Your task to perform on an android device: open wifi settings Image 0: 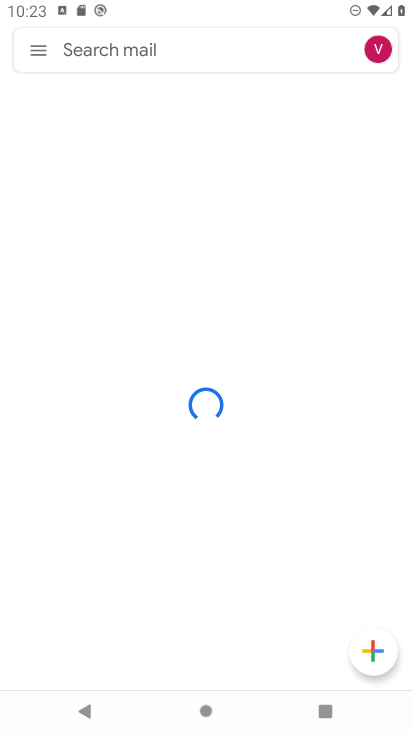
Step 0: press home button
Your task to perform on an android device: open wifi settings Image 1: 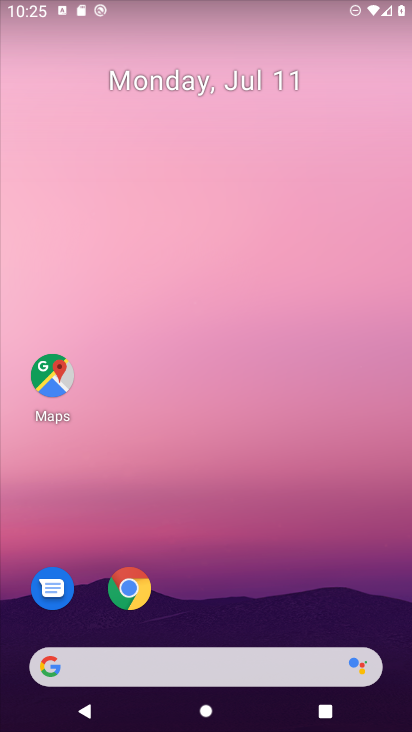
Step 1: drag from (386, 634) to (144, 39)
Your task to perform on an android device: open wifi settings Image 2: 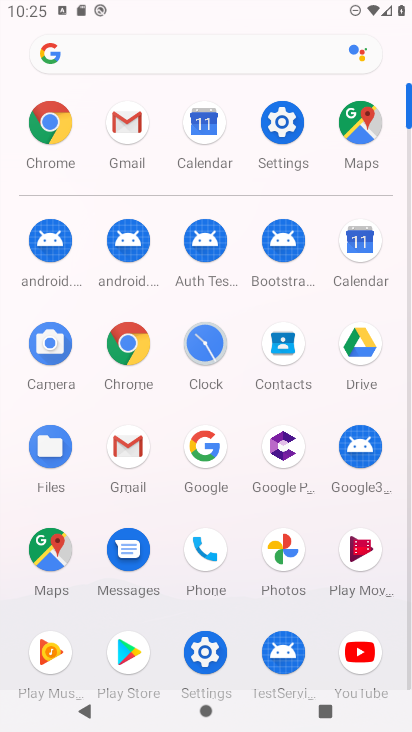
Step 2: click (289, 128)
Your task to perform on an android device: open wifi settings Image 3: 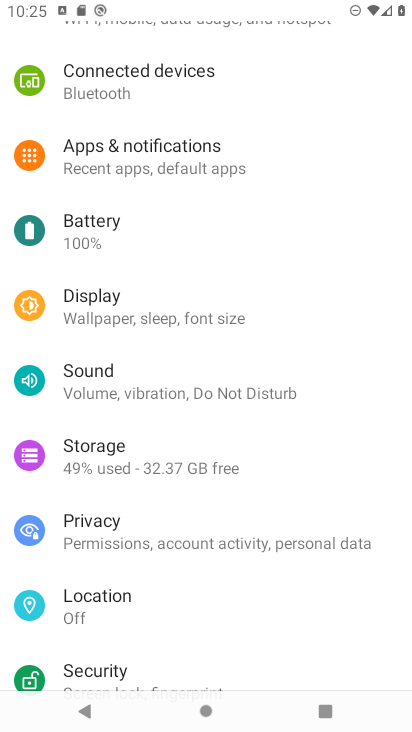
Step 3: drag from (127, 115) to (149, 670)
Your task to perform on an android device: open wifi settings Image 4: 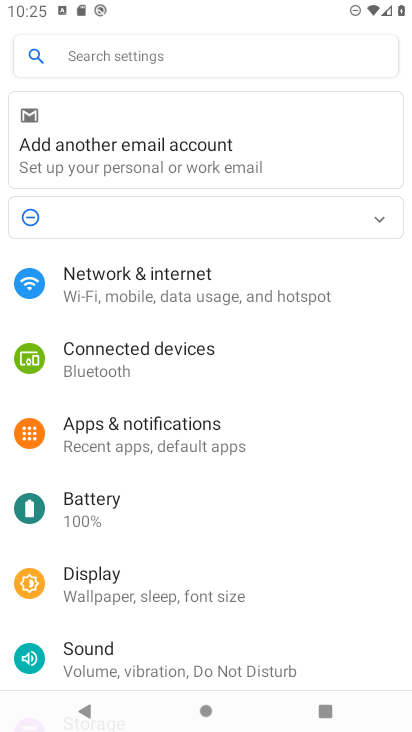
Step 4: click (151, 287)
Your task to perform on an android device: open wifi settings Image 5: 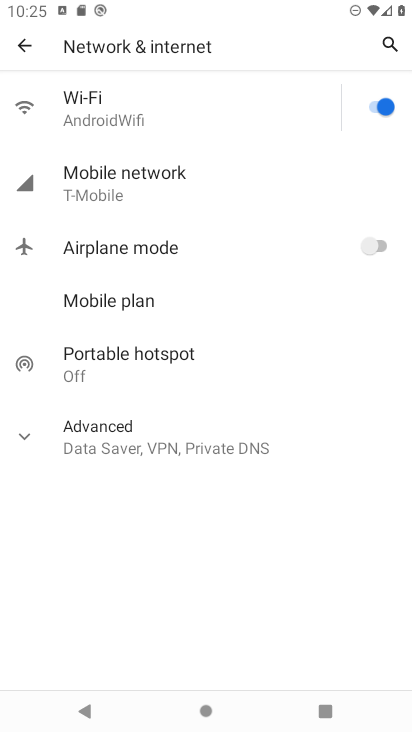
Step 5: click (174, 113)
Your task to perform on an android device: open wifi settings Image 6: 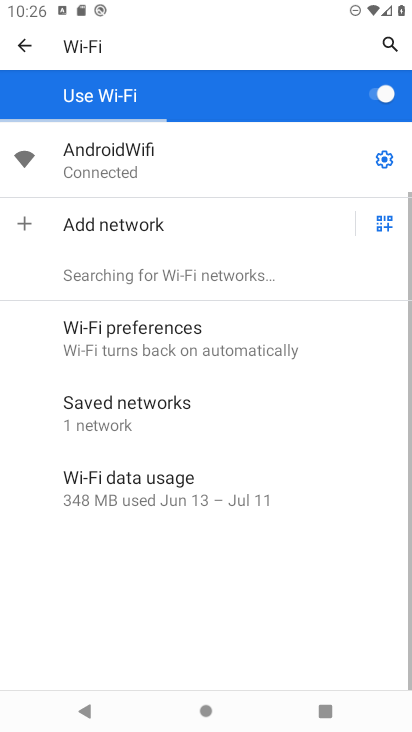
Step 6: task complete